Your task to perform on an android device: turn off airplane mode Image 0: 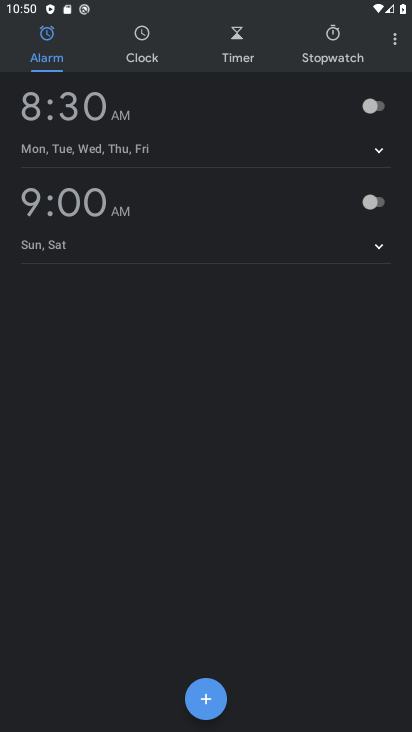
Step 0: press home button
Your task to perform on an android device: turn off airplane mode Image 1: 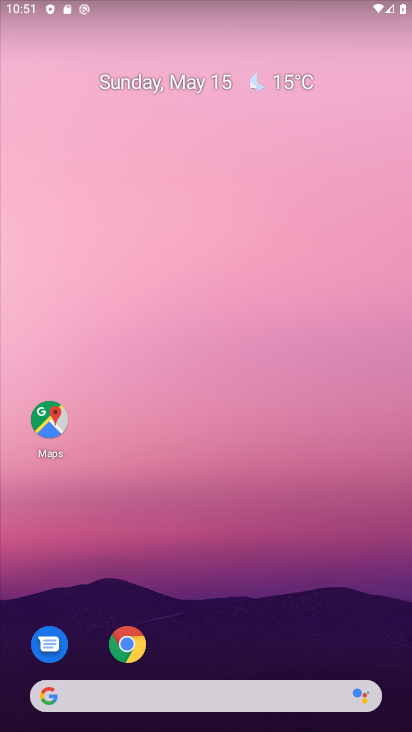
Step 1: drag from (296, 547) to (243, 72)
Your task to perform on an android device: turn off airplane mode Image 2: 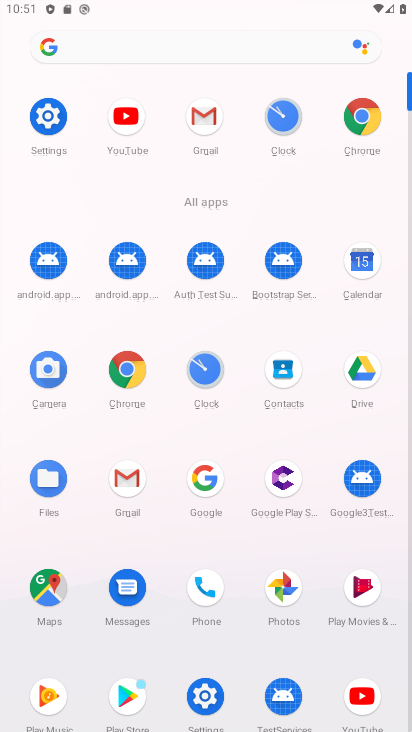
Step 2: click (56, 118)
Your task to perform on an android device: turn off airplane mode Image 3: 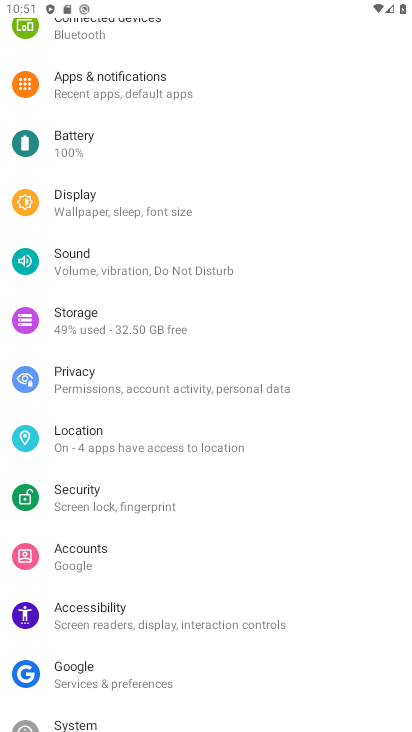
Step 3: drag from (255, 145) to (226, 578)
Your task to perform on an android device: turn off airplane mode Image 4: 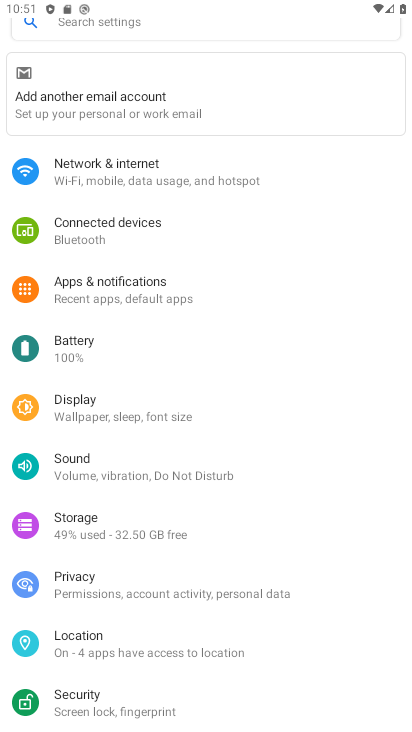
Step 4: click (176, 178)
Your task to perform on an android device: turn off airplane mode Image 5: 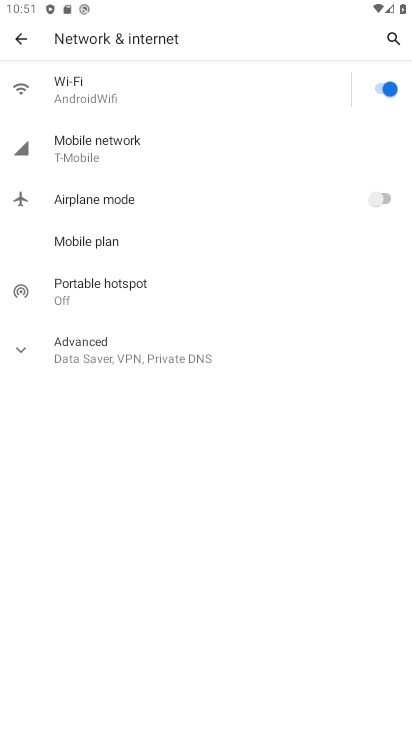
Step 5: task complete